Your task to perform on an android device: Clear the shopping cart on ebay. Search for macbook air on ebay, select the first entry, add it to the cart, then select checkout. Image 0: 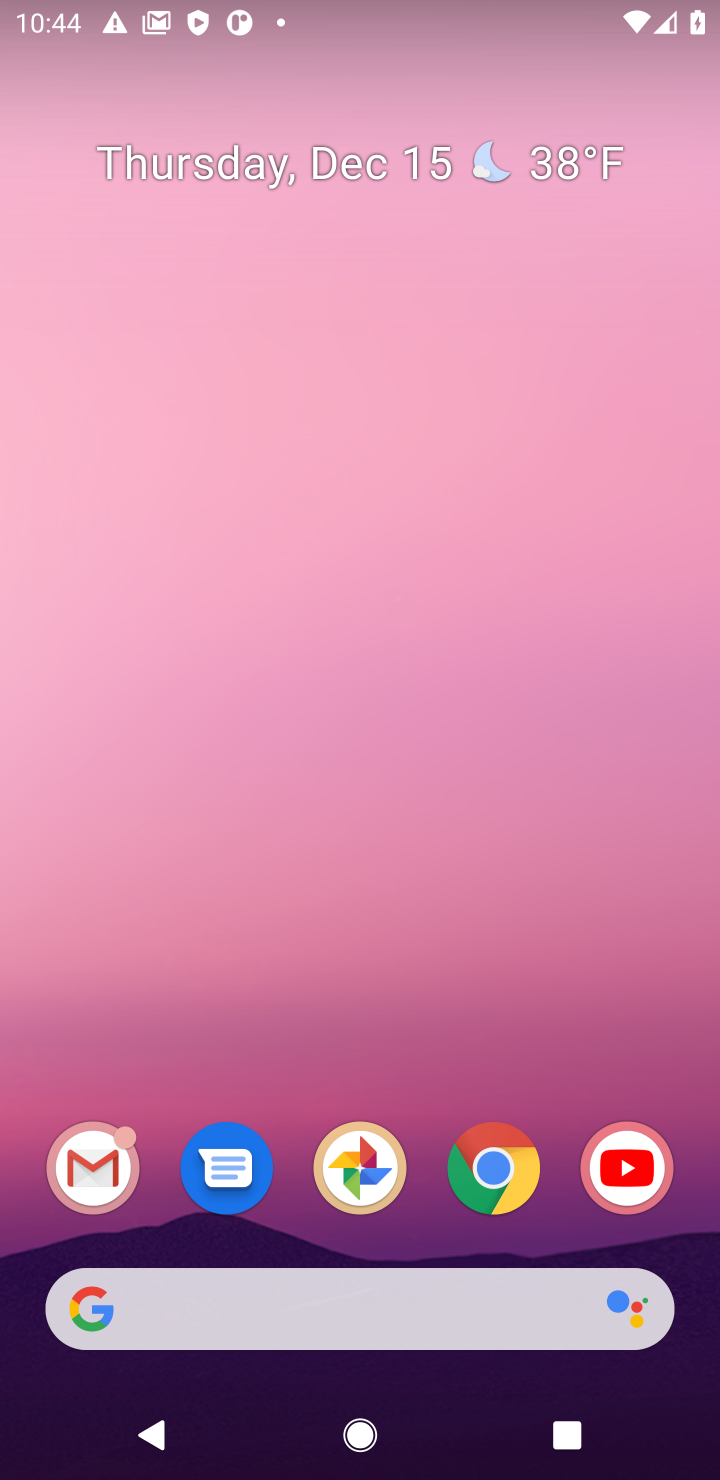
Step 0: click (490, 1179)
Your task to perform on an android device: Clear the shopping cart on ebay. Search for macbook air on ebay, select the first entry, add it to the cart, then select checkout. Image 1: 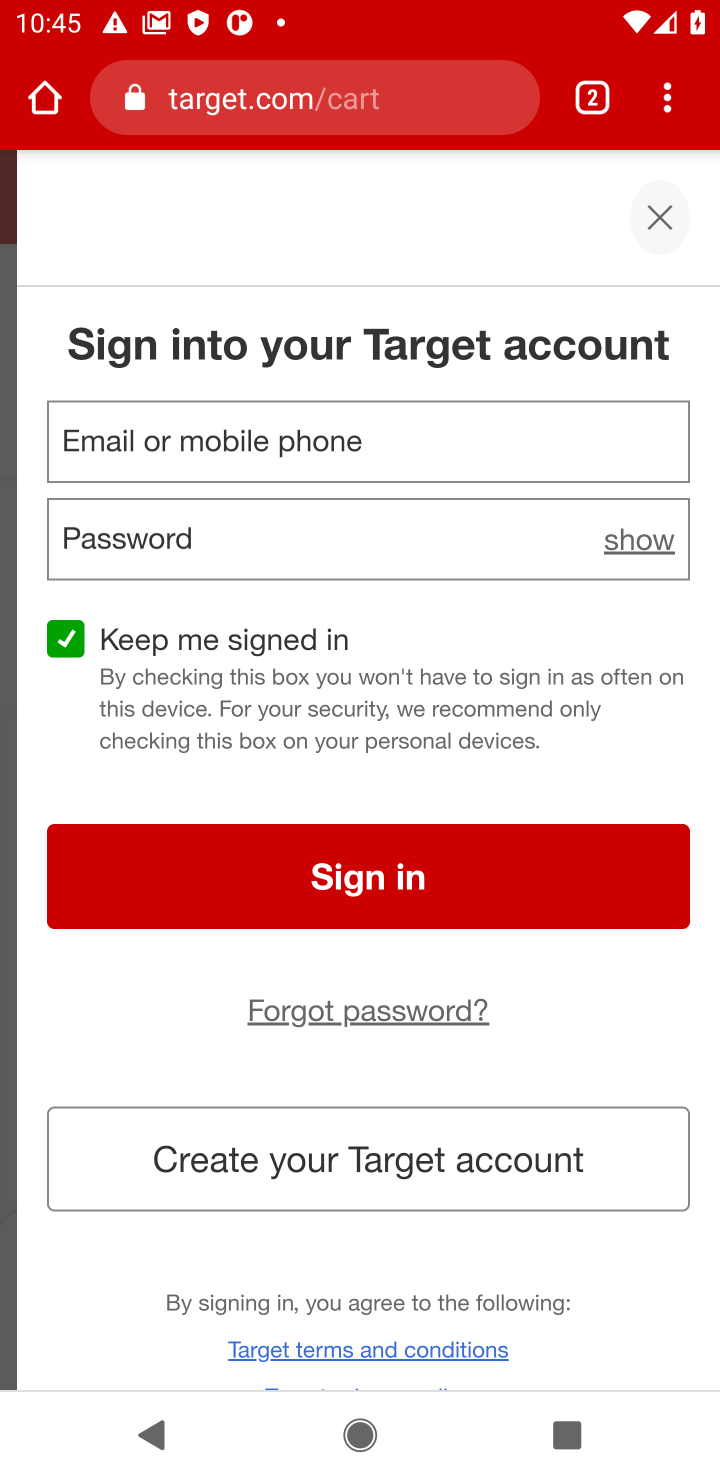
Step 1: click (351, 116)
Your task to perform on an android device: Clear the shopping cart on ebay. Search for macbook air on ebay, select the first entry, add it to the cart, then select checkout. Image 2: 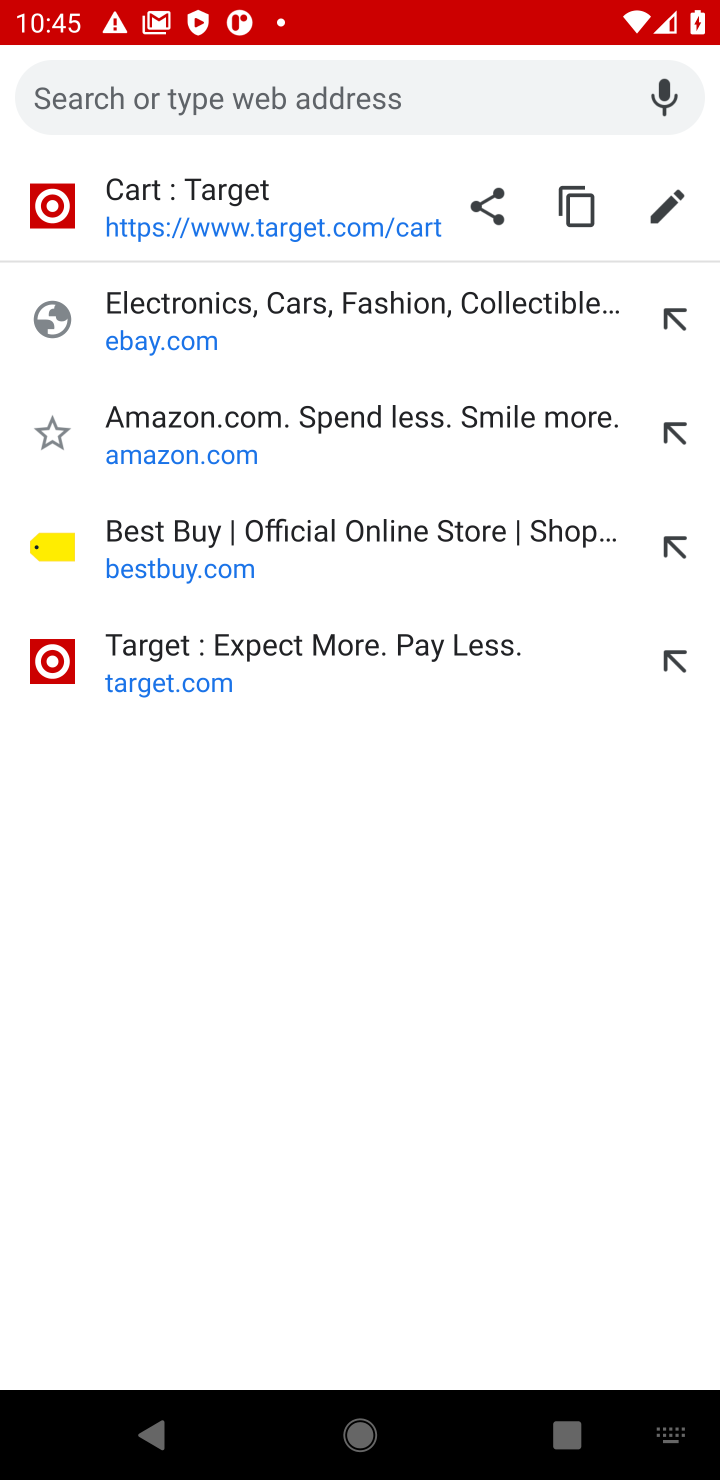
Step 2: click (230, 323)
Your task to perform on an android device: Clear the shopping cart on ebay. Search for macbook air on ebay, select the first entry, add it to the cart, then select checkout. Image 3: 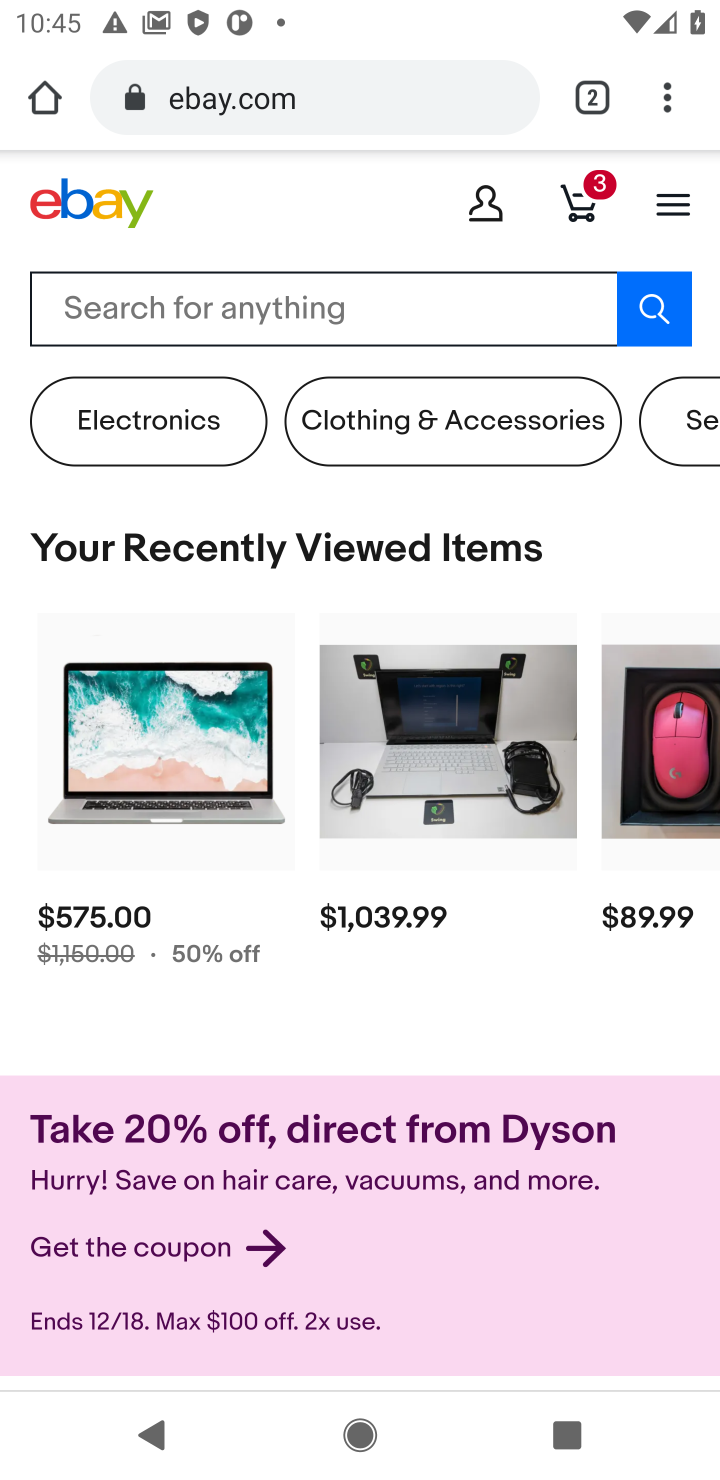
Step 3: drag from (432, 1301) to (343, 355)
Your task to perform on an android device: Clear the shopping cart on ebay. Search for macbook air on ebay, select the first entry, add it to the cart, then select checkout. Image 4: 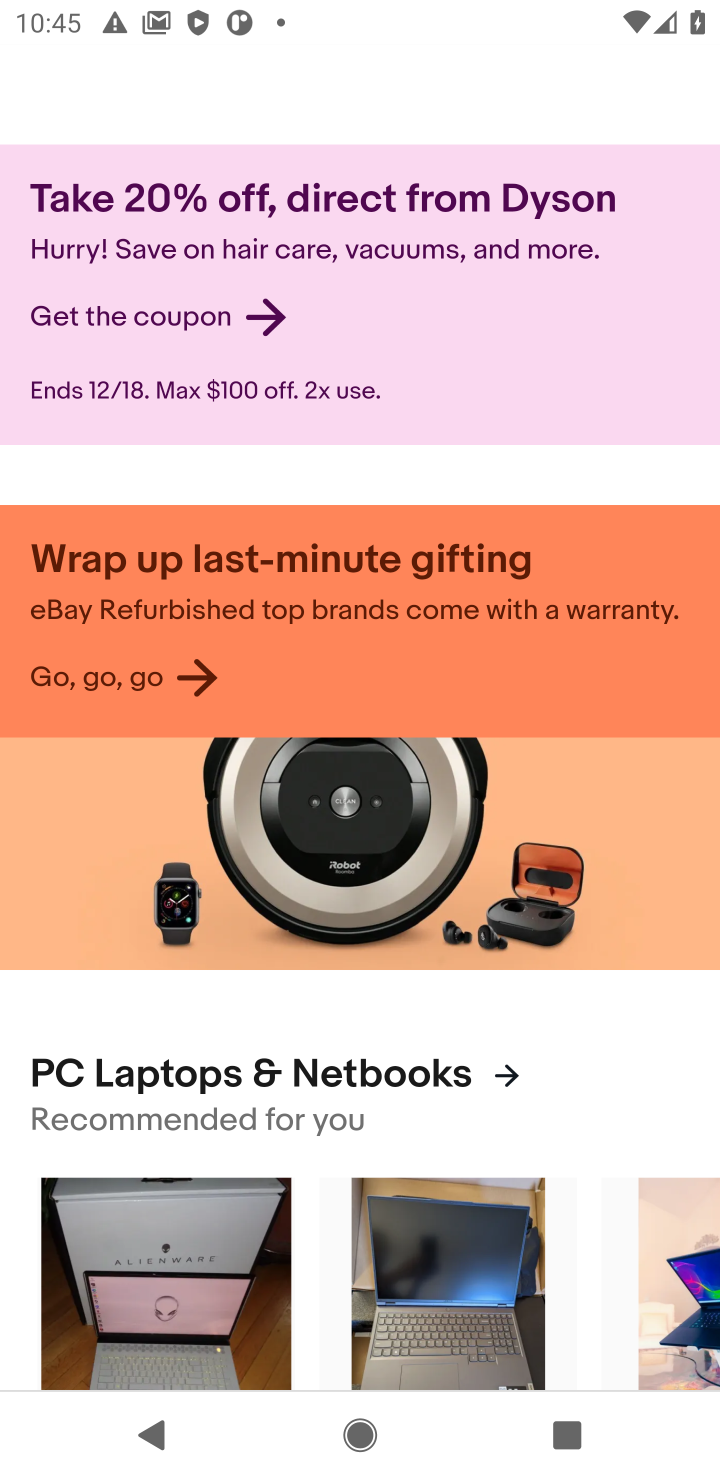
Step 4: drag from (443, 184) to (384, 1078)
Your task to perform on an android device: Clear the shopping cart on ebay. Search for macbook air on ebay, select the first entry, add it to the cart, then select checkout. Image 5: 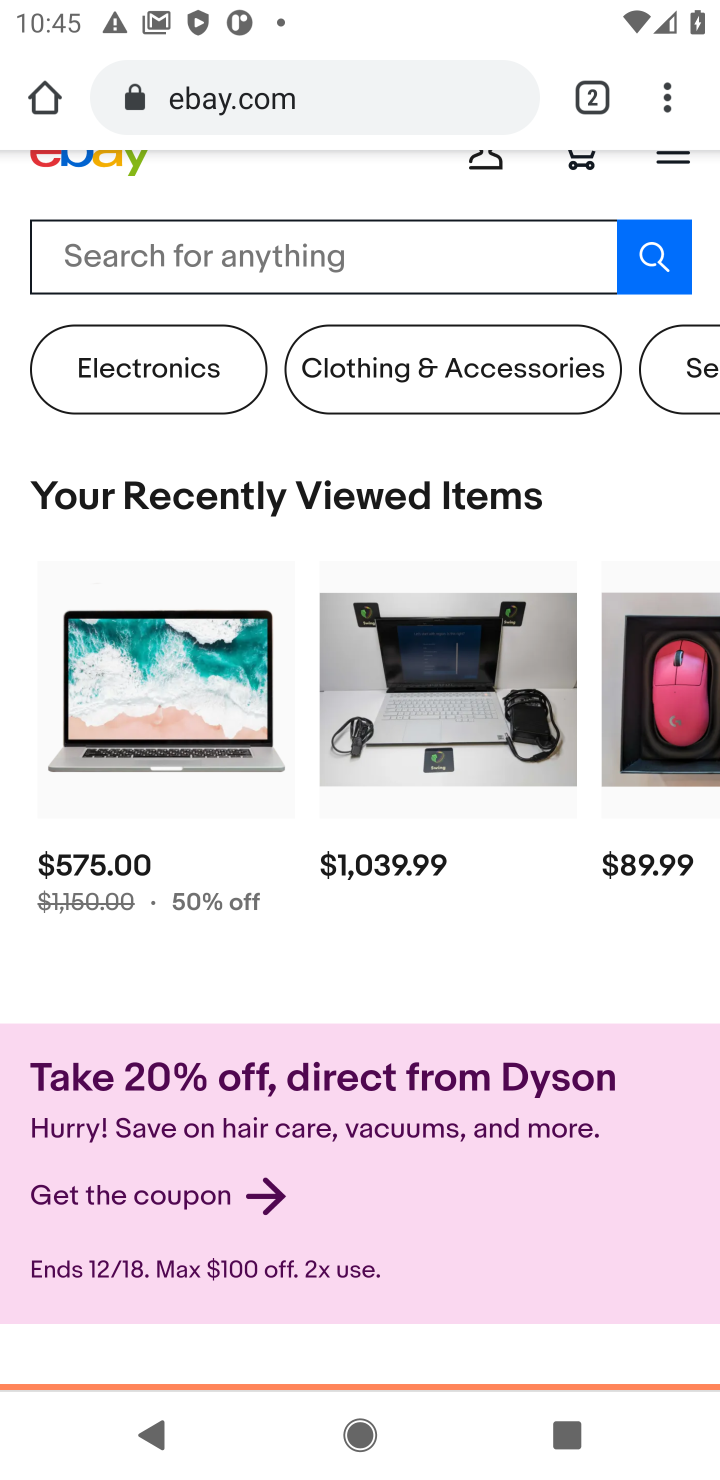
Step 5: drag from (507, 231) to (450, 796)
Your task to perform on an android device: Clear the shopping cart on ebay. Search for macbook air on ebay, select the first entry, add it to the cart, then select checkout. Image 6: 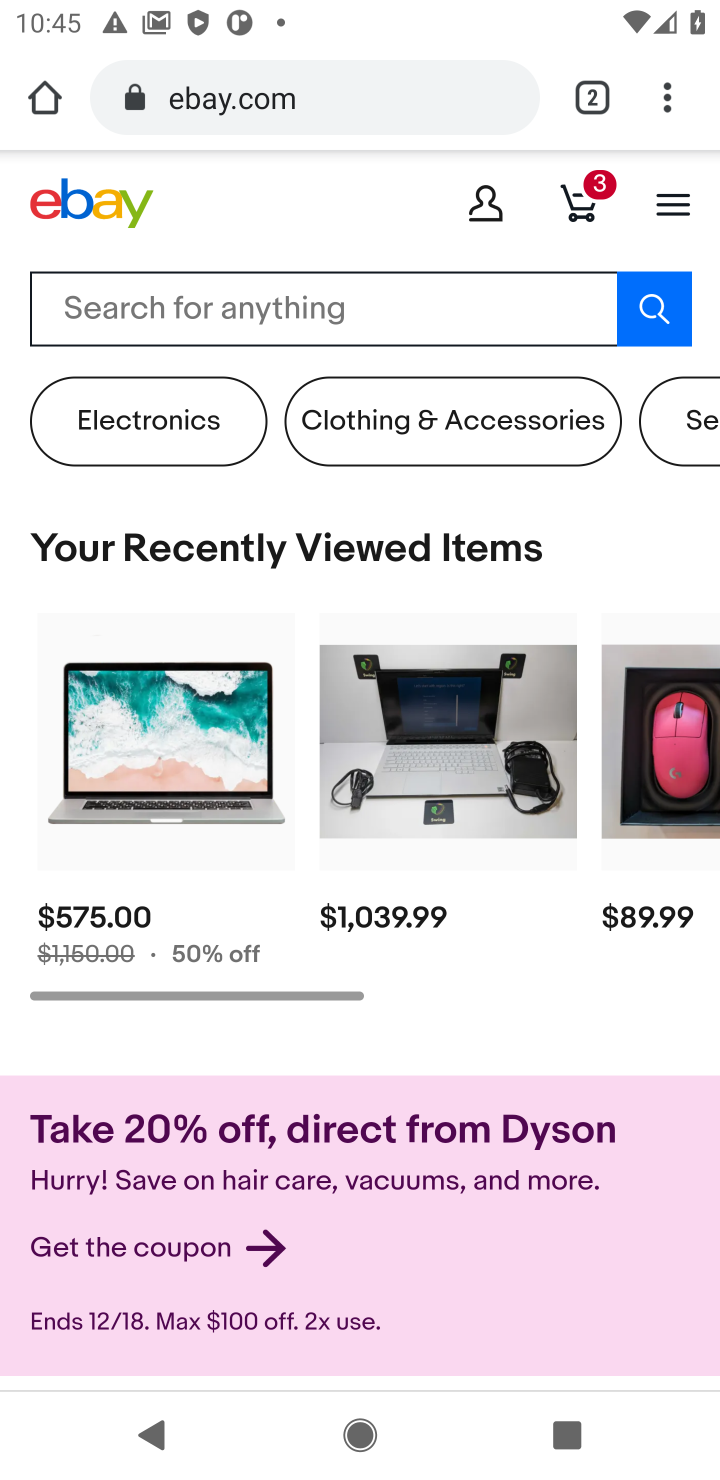
Step 6: click (589, 193)
Your task to perform on an android device: Clear the shopping cart on ebay. Search for macbook air on ebay, select the first entry, add it to the cart, then select checkout. Image 7: 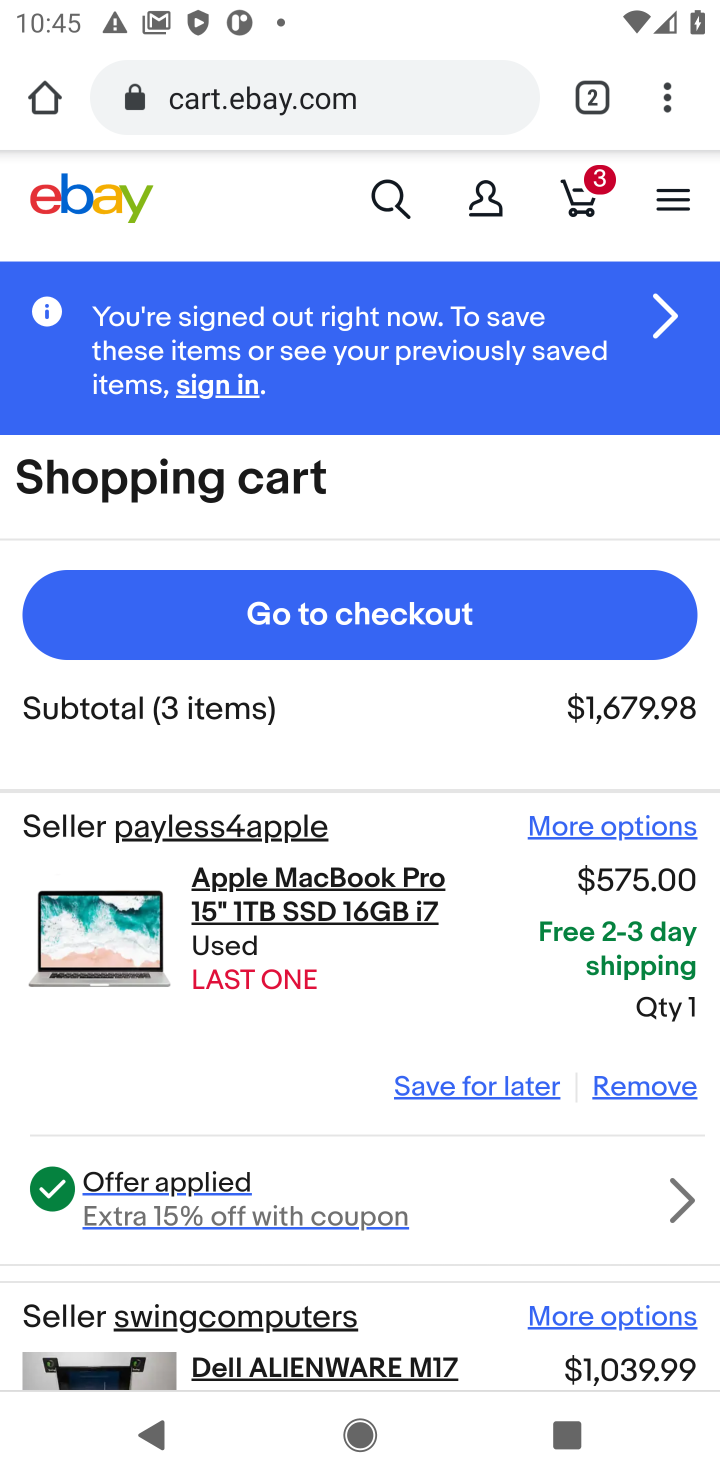
Step 7: click (386, 631)
Your task to perform on an android device: Clear the shopping cart on ebay. Search for macbook air on ebay, select the first entry, add it to the cart, then select checkout. Image 8: 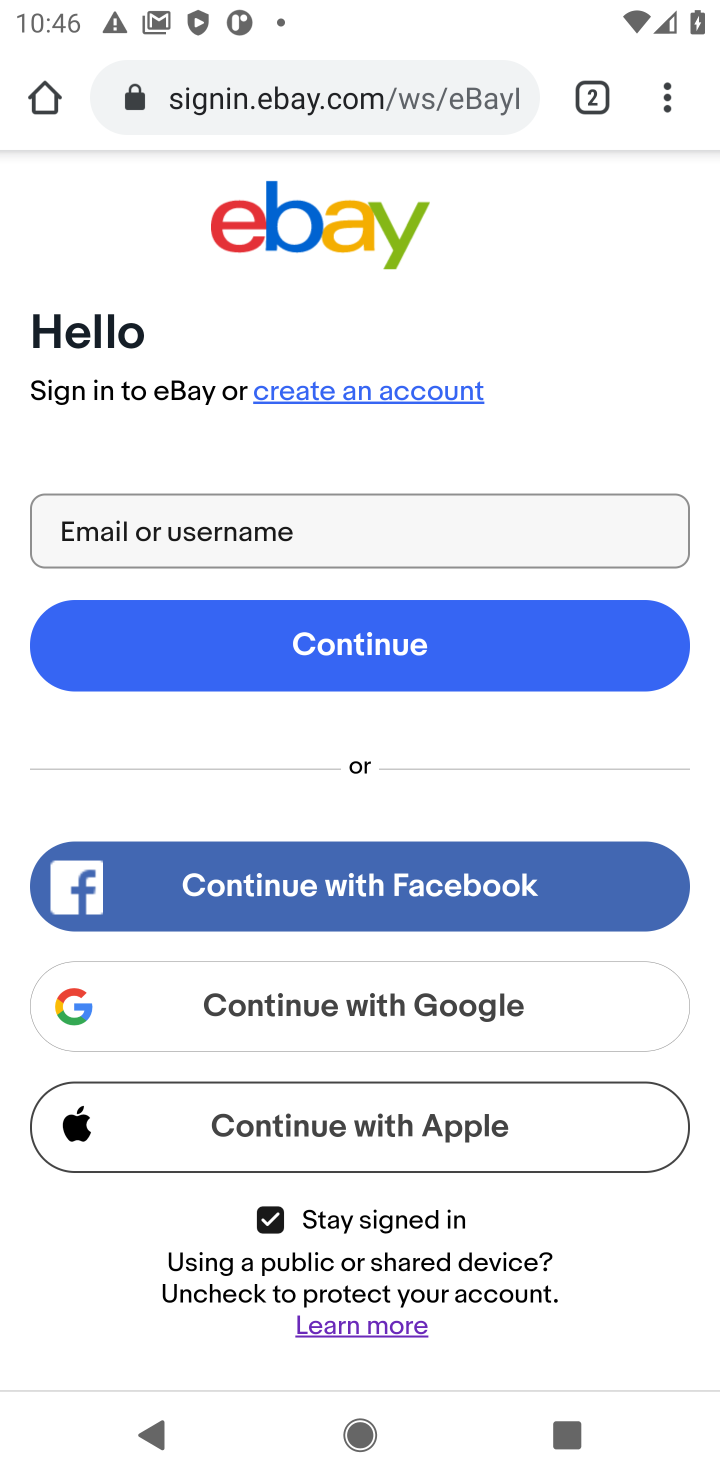
Step 8: click (354, 242)
Your task to perform on an android device: Clear the shopping cart on ebay. Search for macbook air on ebay, select the first entry, add it to the cart, then select checkout. Image 9: 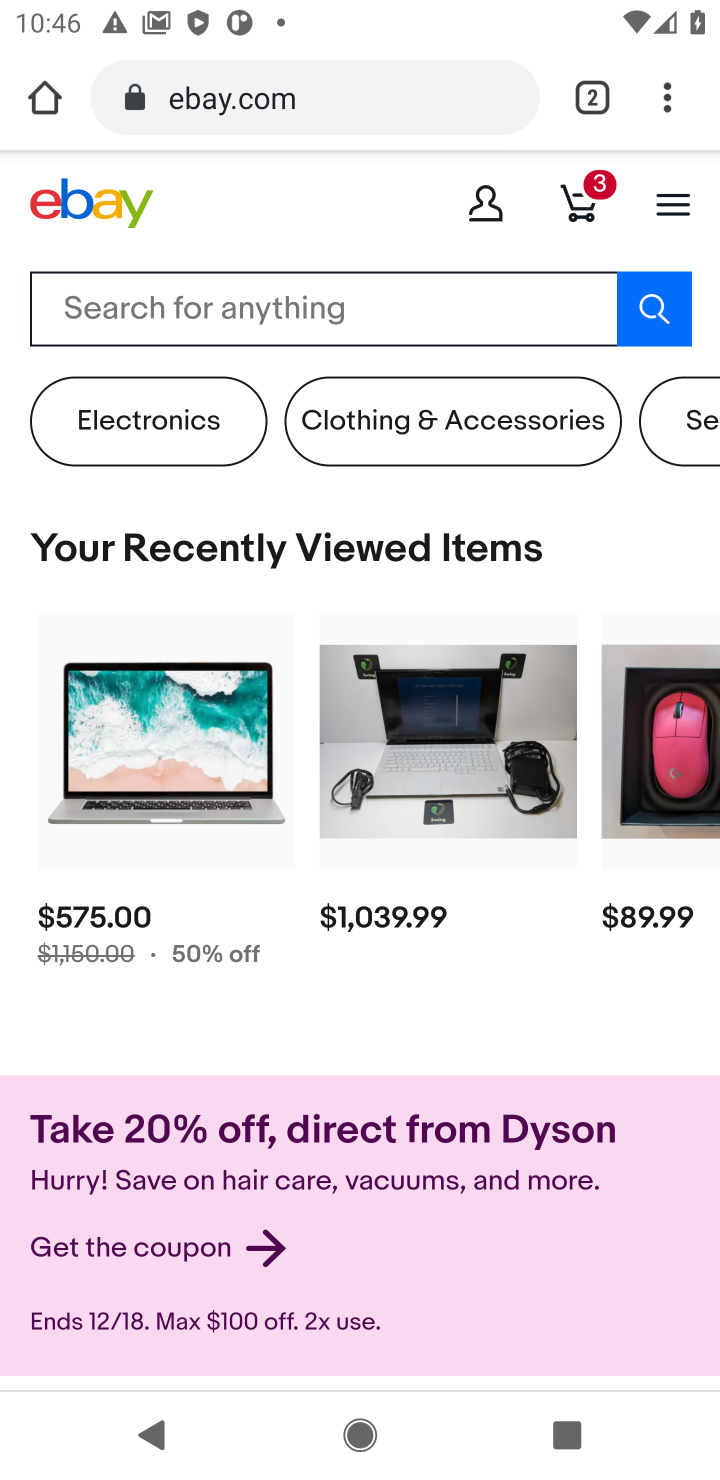
Step 9: click (459, 301)
Your task to perform on an android device: Clear the shopping cart on ebay. Search for macbook air on ebay, select the first entry, add it to the cart, then select checkout. Image 10: 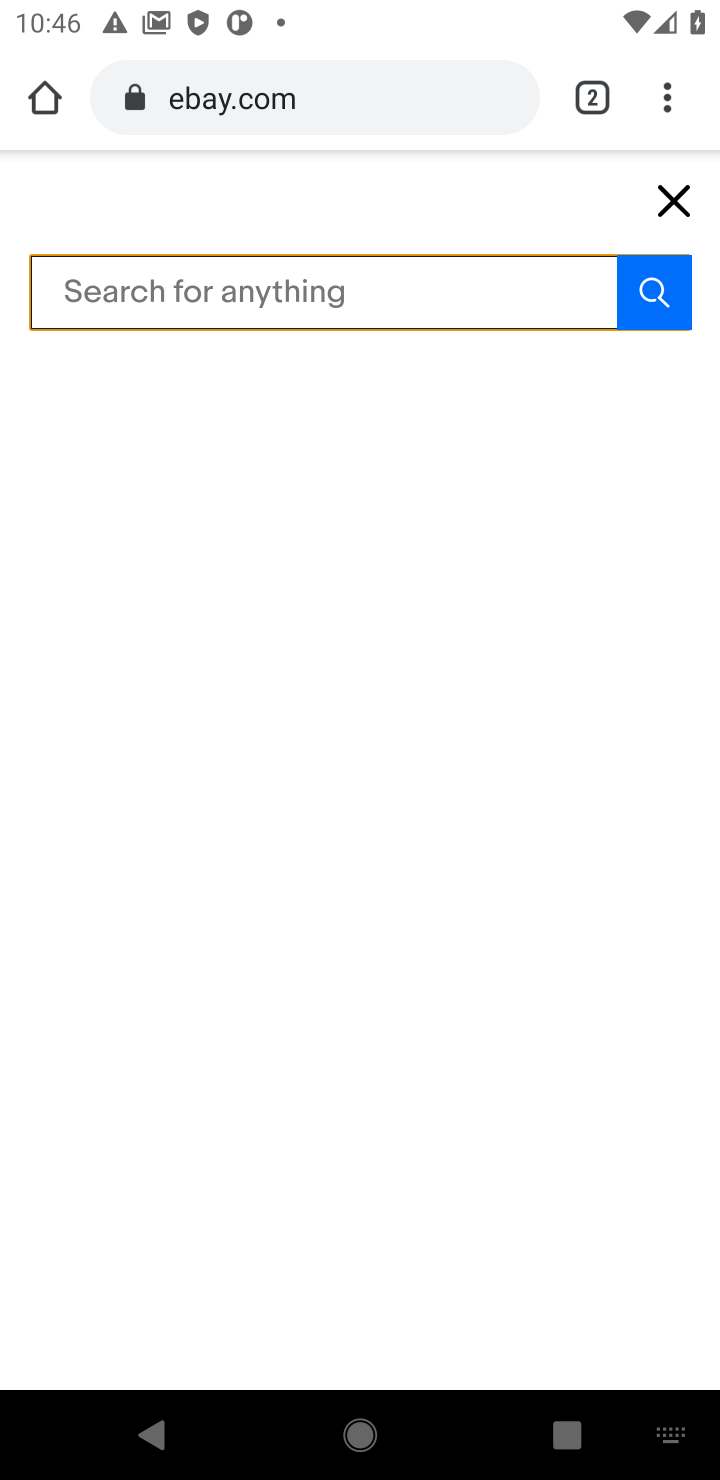
Step 10: type "macbook air"
Your task to perform on an android device: Clear the shopping cart on ebay. Search for macbook air on ebay, select the first entry, add it to the cart, then select checkout. Image 11: 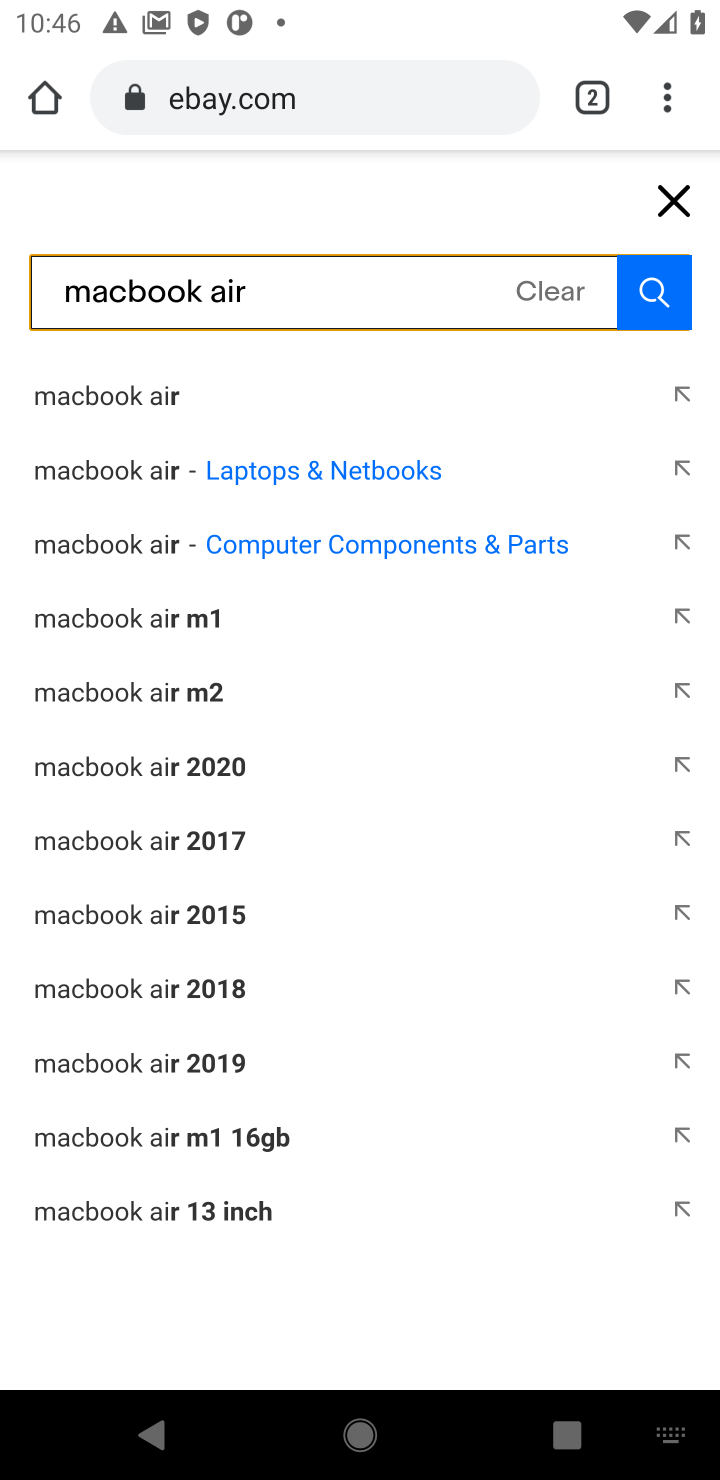
Step 11: click (153, 402)
Your task to perform on an android device: Clear the shopping cart on ebay. Search for macbook air on ebay, select the first entry, add it to the cart, then select checkout. Image 12: 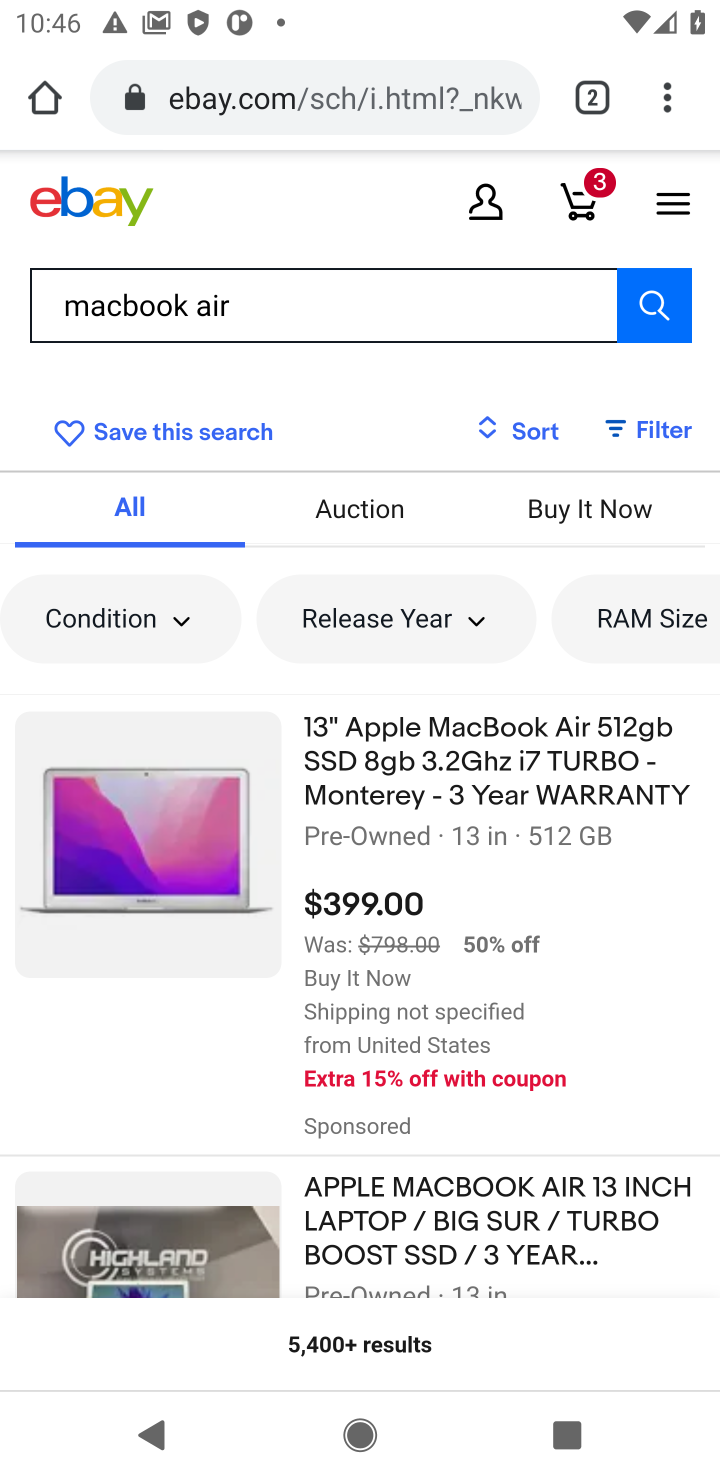
Step 12: click (573, 759)
Your task to perform on an android device: Clear the shopping cart on ebay. Search for macbook air on ebay, select the first entry, add it to the cart, then select checkout. Image 13: 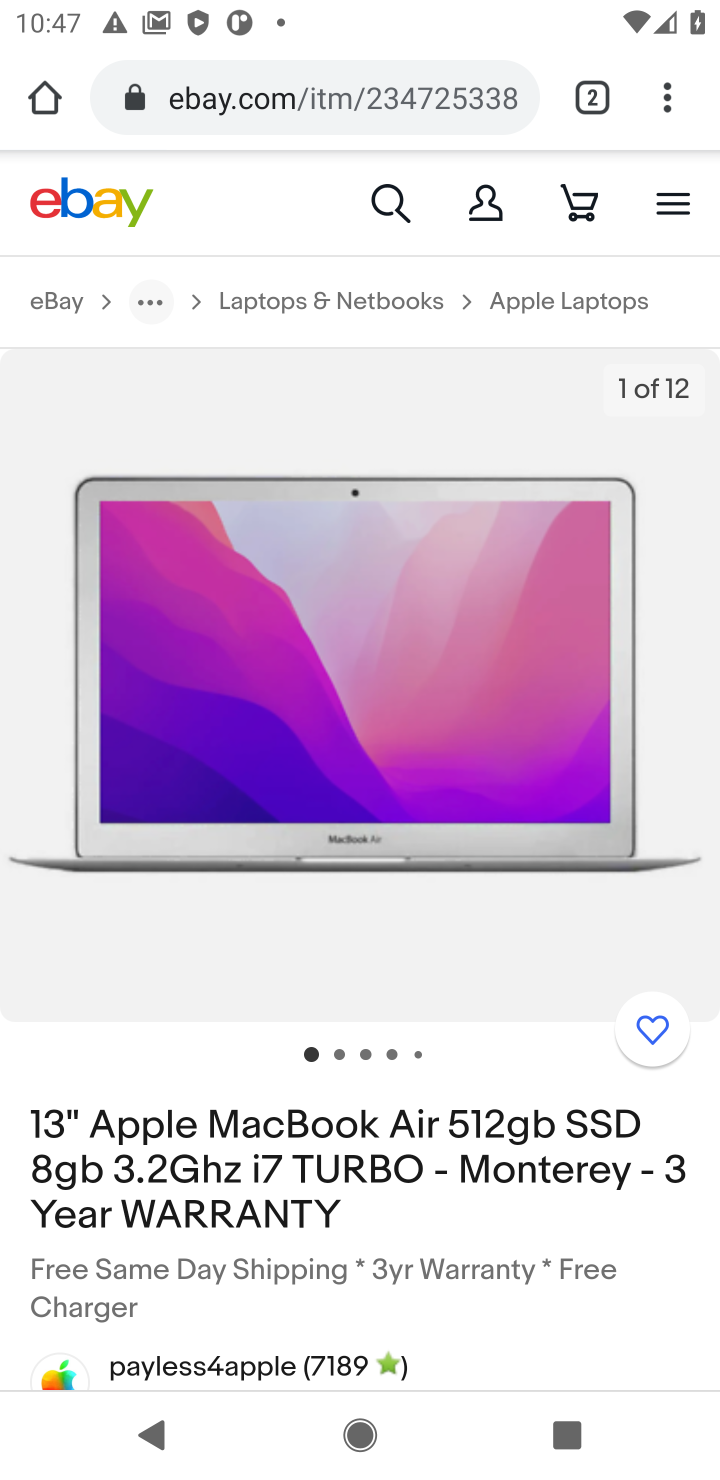
Step 13: drag from (530, 1218) to (445, 179)
Your task to perform on an android device: Clear the shopping cart on ebay. Search for macbook air on ebay, select the first entry, add it to the cart, then select checkout. Image 14: 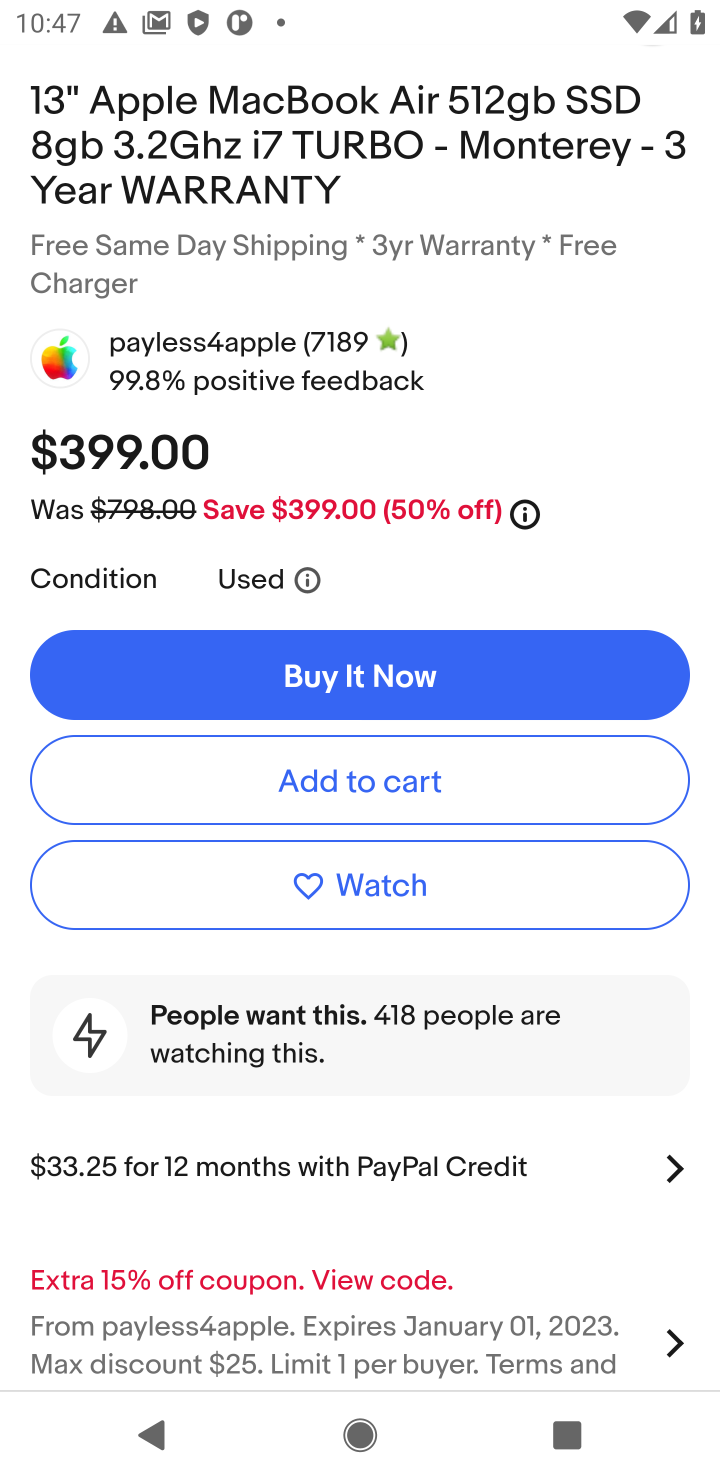
Step 14: click (373, 776)
Your task to perform on an android device: Clear the shopping cart on ebay. Search for macbook air on ebay, select the first entry, add it to the cart, then select checkout. Image 15: 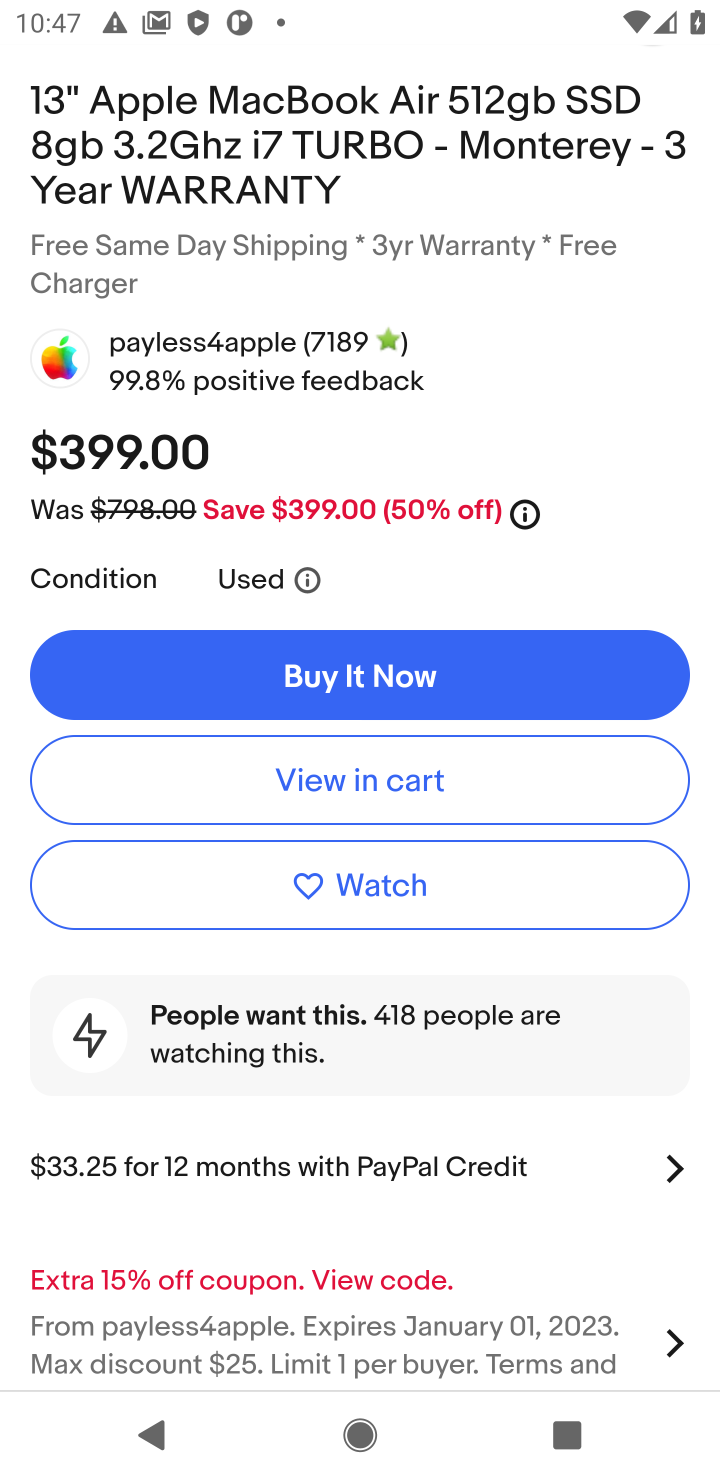
Step 15: click (373, 776)
Your task to perform on an android device: Clear the shopping cart on ebay. Search for macbook air on ebay, select the first entry, add it to the cart, then select checkout. Image 16: 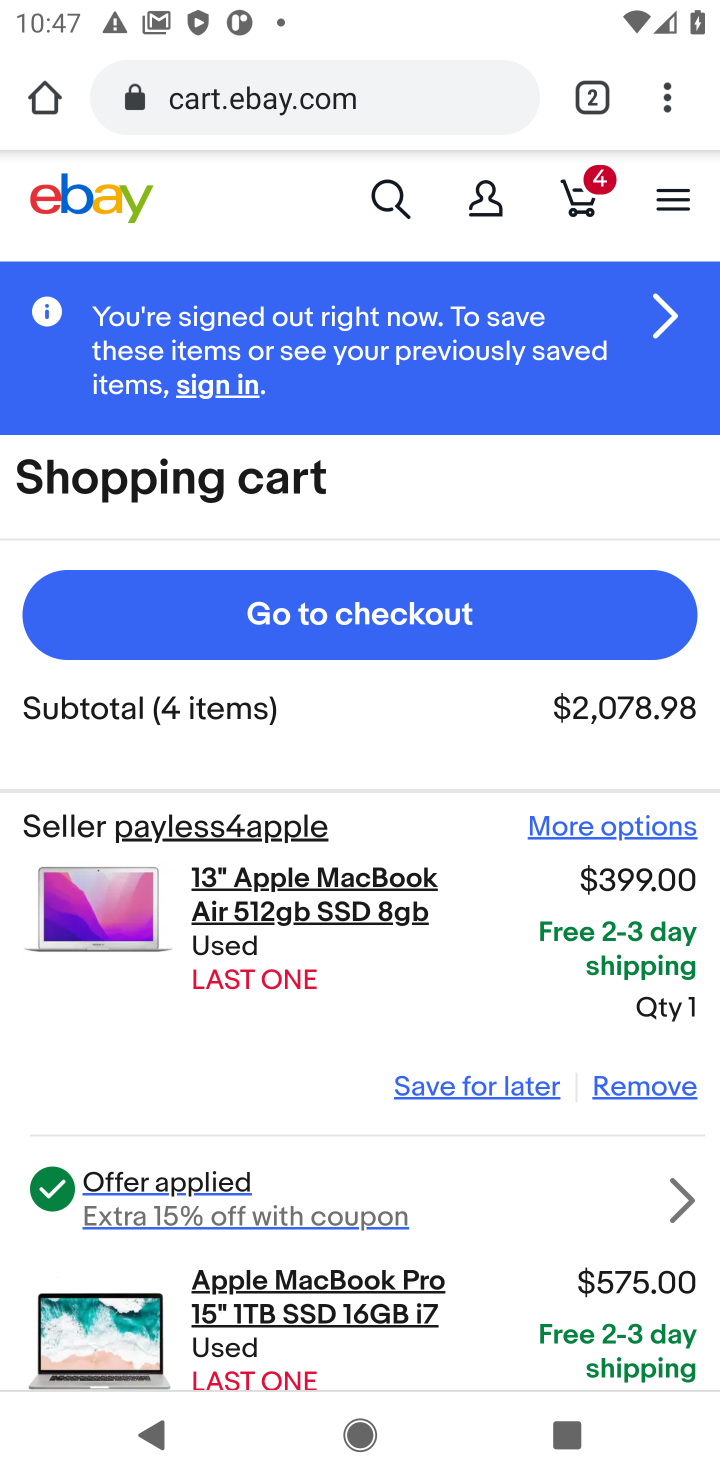
Step 16: click (549, 640)
Your task to perform on an android device: Clear the shopping cart on ebay. Search for macbook air on ebay, select the first entry, add it to the cart, then select checkout. Image 17: 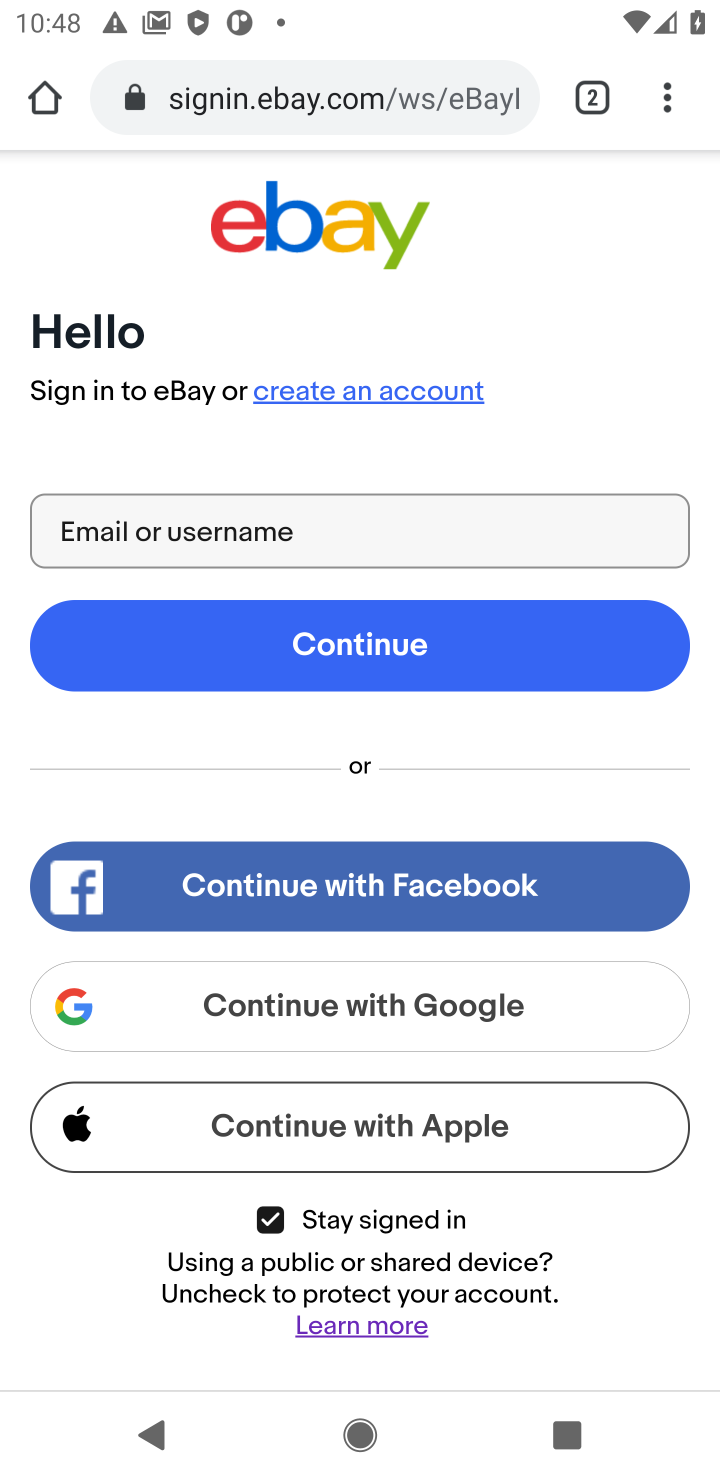
Step 17: task complete